Your task to perform on an android device: toggle data saver in the chrome app Image 0: 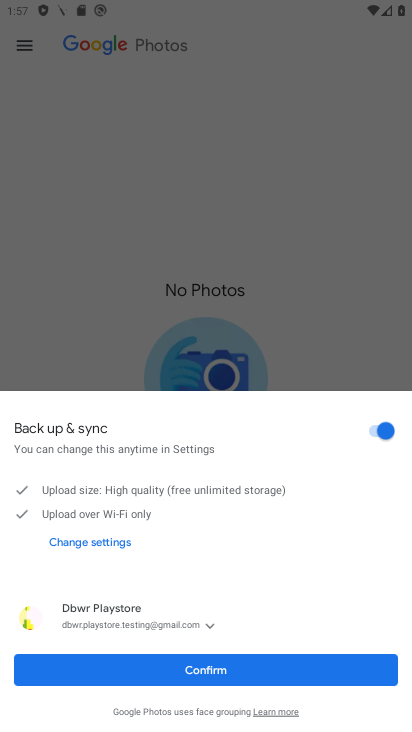
Step 0: click (254, 676)
Your task to perform on an android device: toggle data saver in the chrome app Image 1: 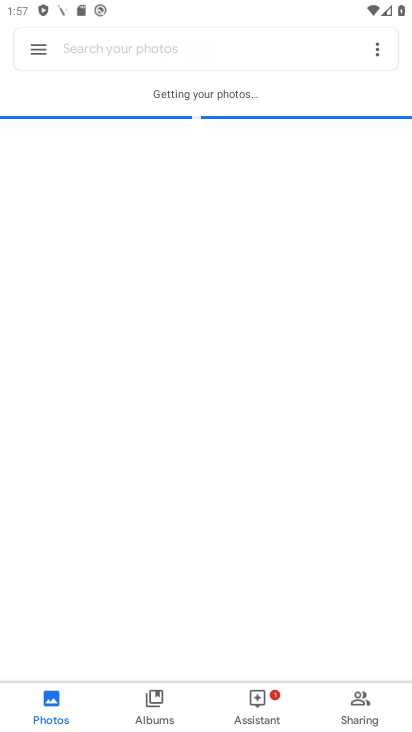
Step 1: press home button
Your task to perform on an android device: toggle data saver in the chrome app Image 2: 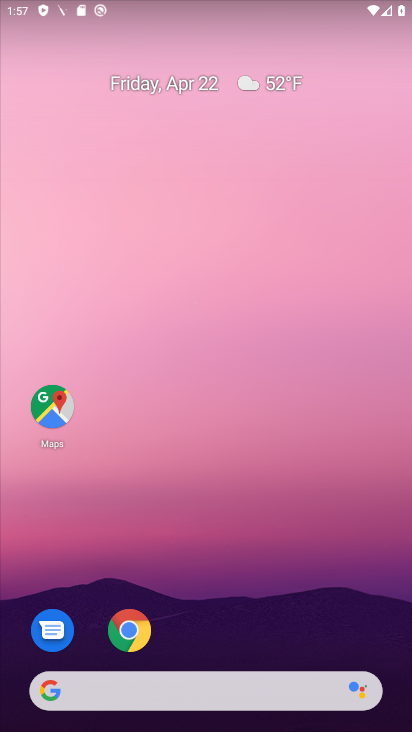
Step 2: click (148, 634)
Your task to perform on an android device: toggle data saver in the chrome app Image 3: 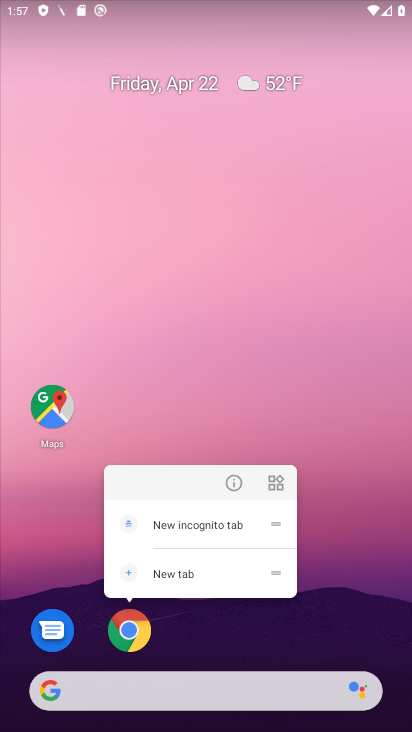
Step 3: click (226, 485)
Your task to perform on an android device: toggle data saver in the chrome app Image 4: 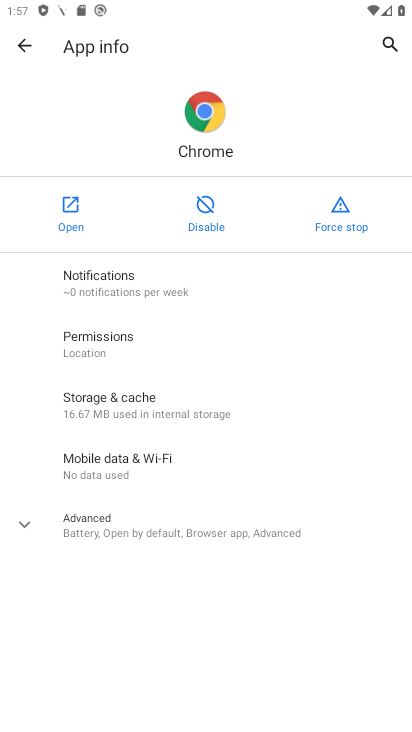
Step 4: click (63, 217)
Your task to perform on an android device: toggle data saver in the chrome app Image 5: 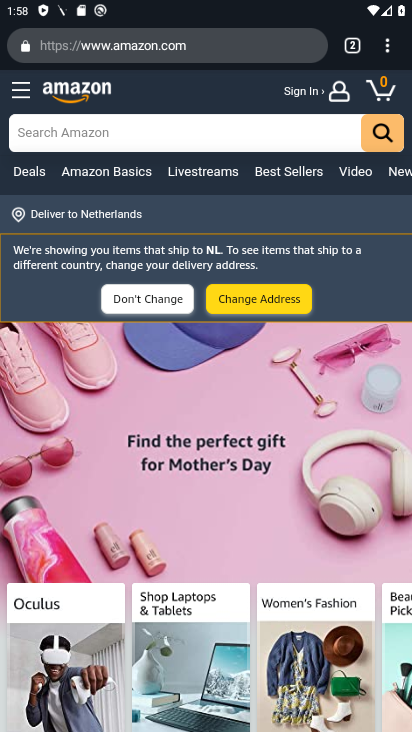
Step 5: click (353, 44)
Your task to perform on an android device: toggle data saver in the chrome app Image 6: 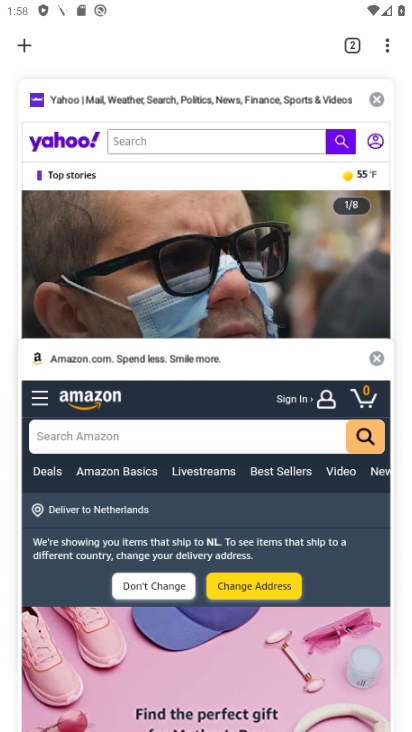
Step 6: click (387, 45)
Your task to perform on an android device: toggle data saver in the chrome app Image 7: 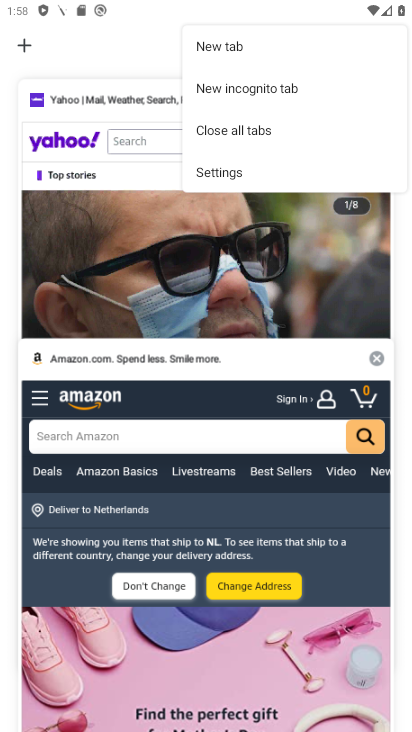
Step 7: click (257, 181)
Your task to perform on an android device: toggle data saver in the chrome app Image 8: 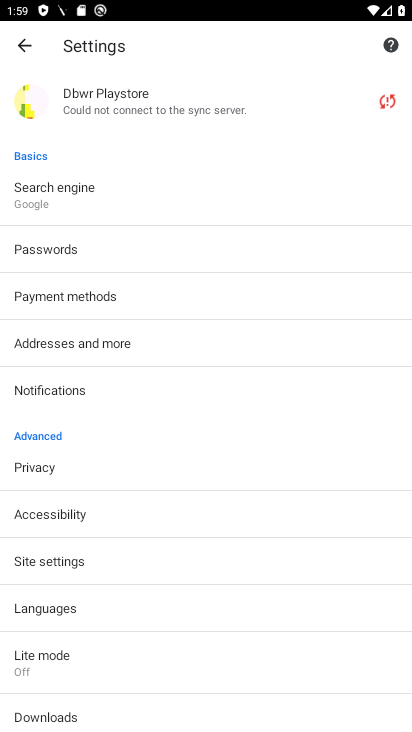
Step 8: click (137, 662)
Your task to perform on an android device: toggle data saver in the chrome app Image 9: 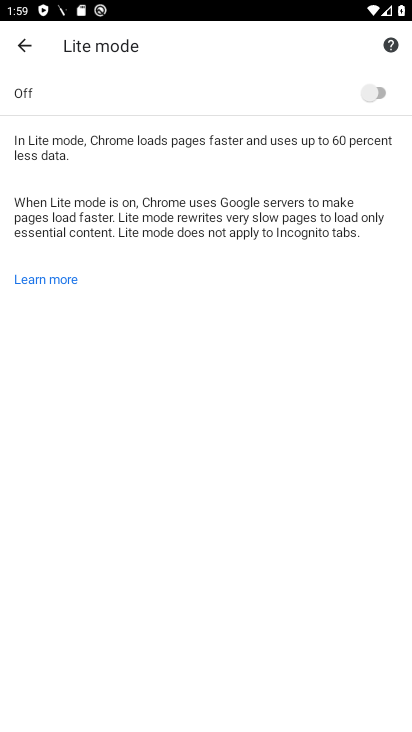
Step 9: click (361, 106)
Your task to perform on an android device: toggle data saver in the chrome app Image 10: 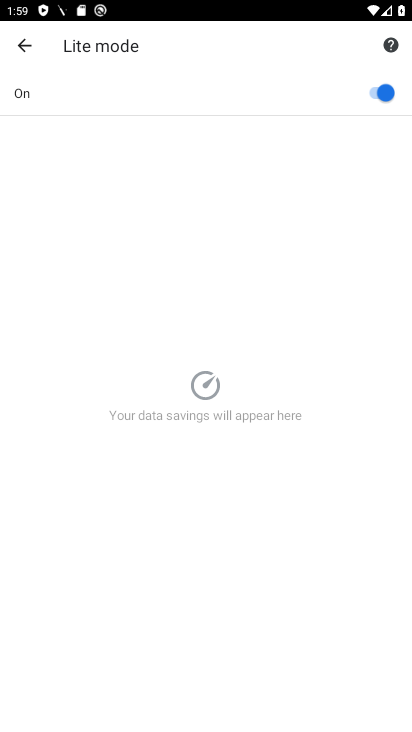
Step 10: task complete